Your task to perform on an android device: What is the recent news? Image 0: 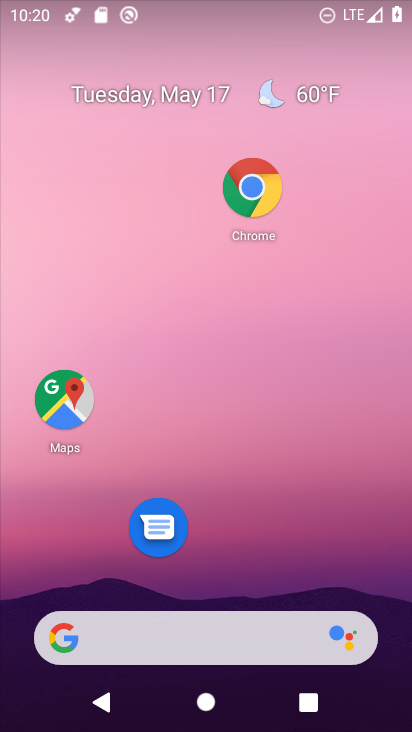
Step 0: drag from (275, 578) to (271, 241)
Your task to perform on an android device: What is the recent news? Image 1: 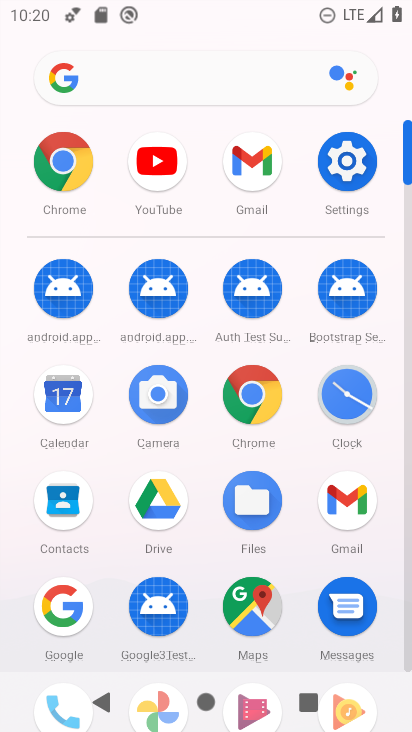
Step 1: click (185, 95)
Your task to perform on an android device: What is the recent news? Image 2: 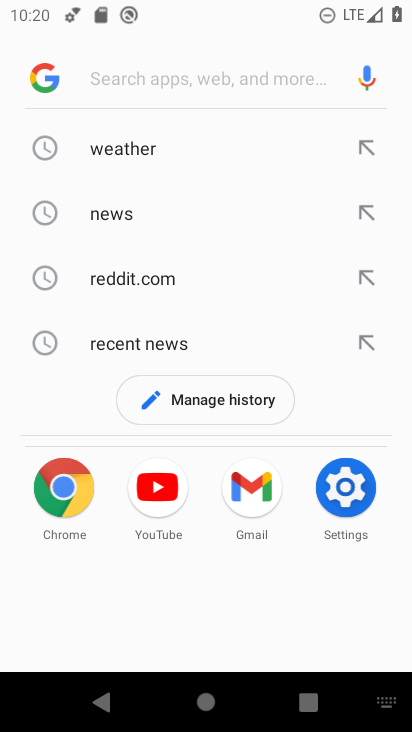
Step 2: click (150, 339)
Your task to perform on an android device: What is the recent news? Image 3: 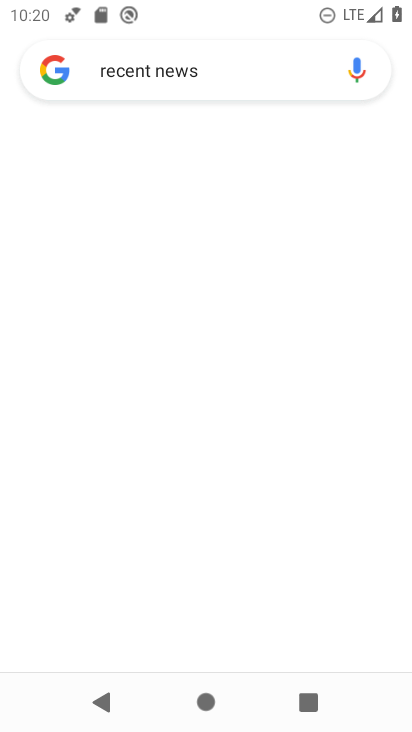
Step 3: task complete